Your task to perform on an android device: Go to Amazon Image 0: 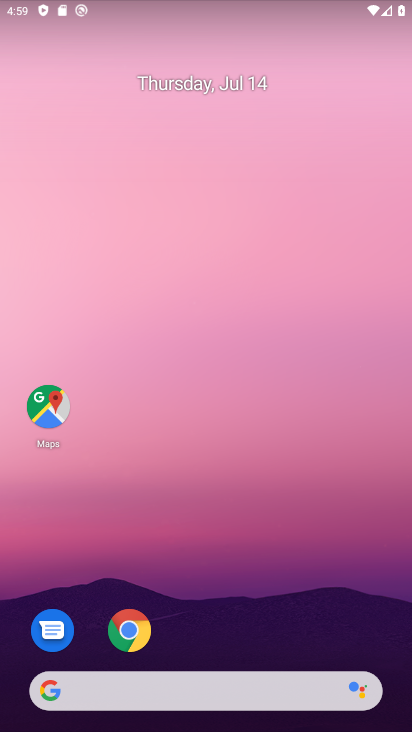
Step 0: press home button
Your task to perform on an android device: Go to Amazon Image 1: 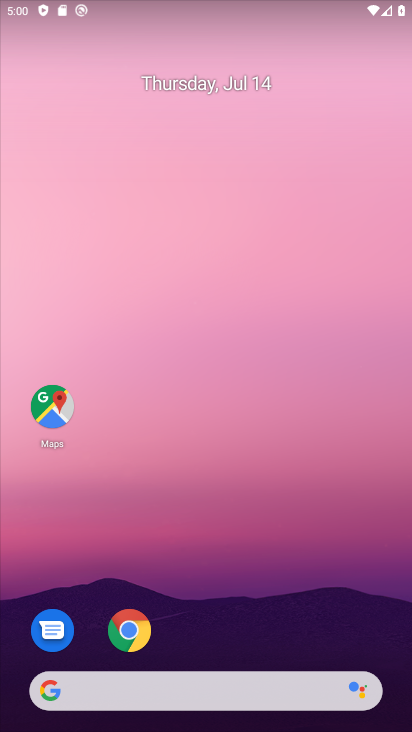
Step 1: click (41, 693)
Your task to perform on an android device: Go to Amazon Image 2: 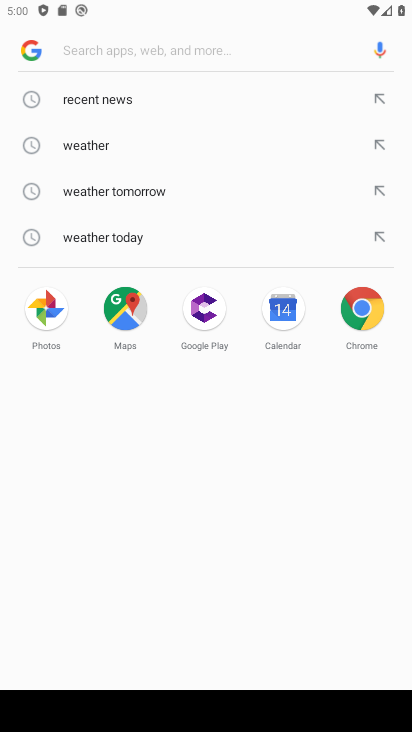
Step 2: type " Amazon"
Your task to perform on an android device: Go to Amazon Image 3: 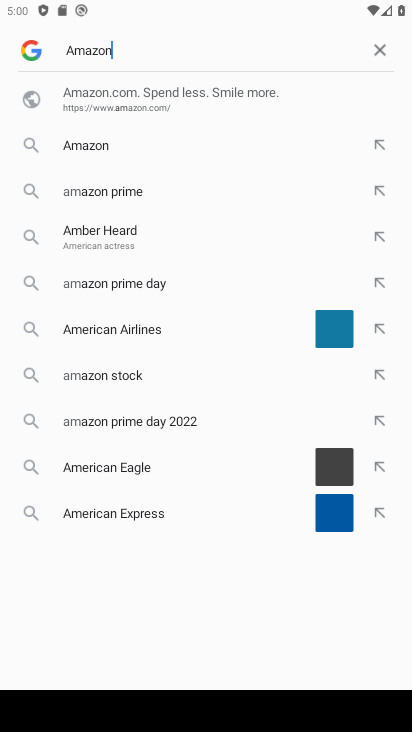
Step 3: press enter
Your task to perform on an android device: Go to Amazon Image 4: 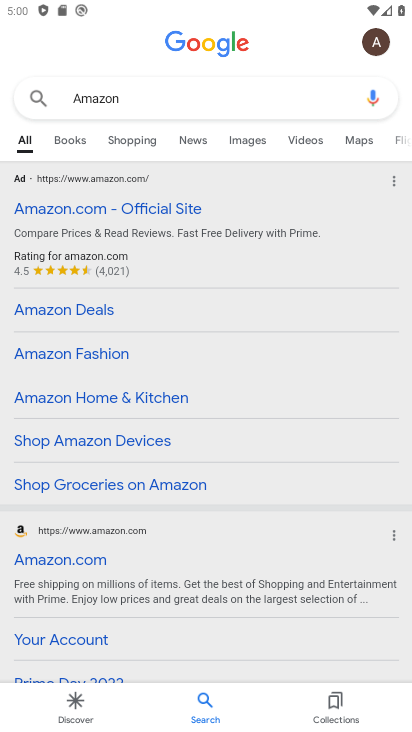
Step 4: click (108, 213)
Your task to perform on an android device: Go to Amazon Image 5: 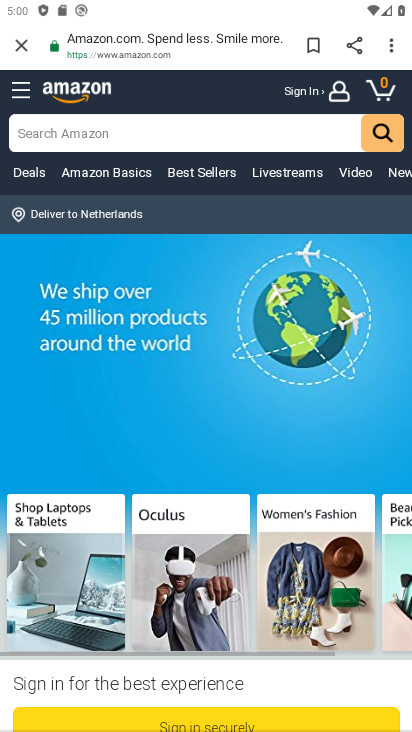
Step 5: task complete